Your task to perform on an android device: Is it going to rain today? Image 0: 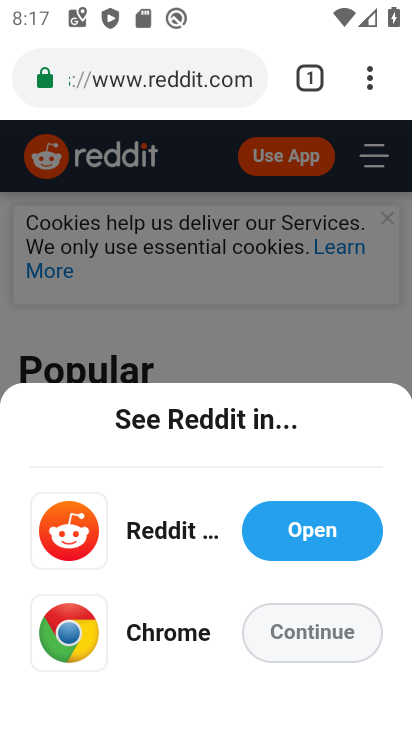
Step 0: press home button
Your task to perform on an android device: Is it going to rain today? Image 1: 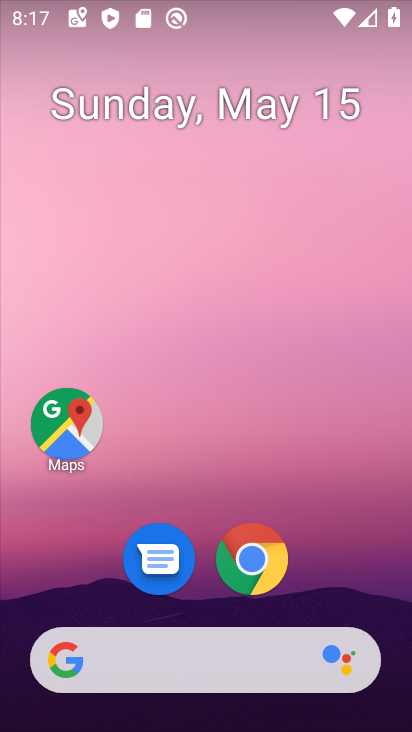
Step 1: click (223, 671)
Your task to perform on an android device: Is it going to rain today? Image 2: 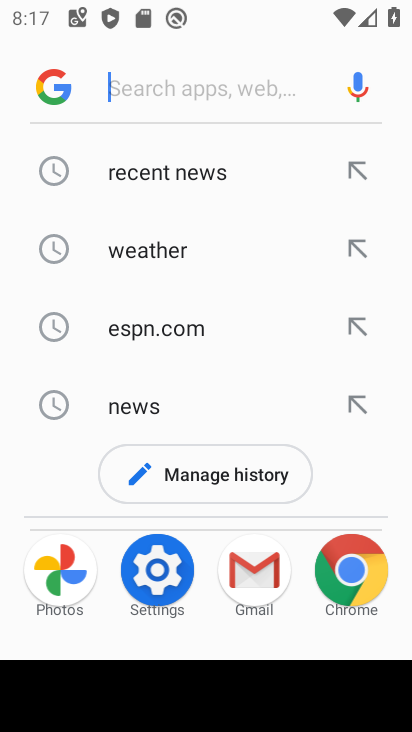
Step 2: click (209, 259)
Your task to perform on an android device: Is it going to rain today? Image 3: 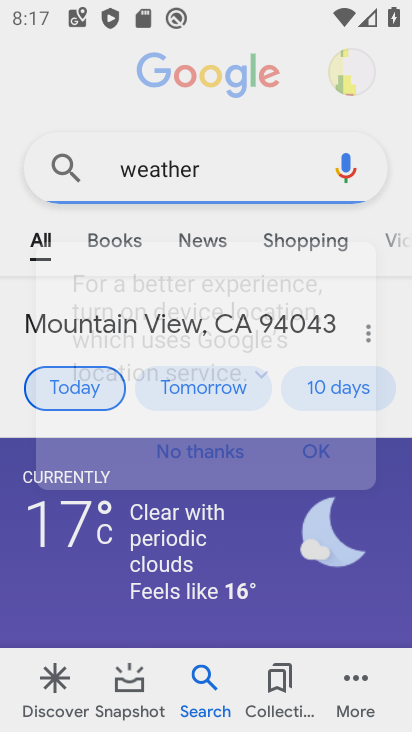
Step 3: task complete